Your task to perform on an android device: Search for seafood restaurants on Google Maps Image 0: 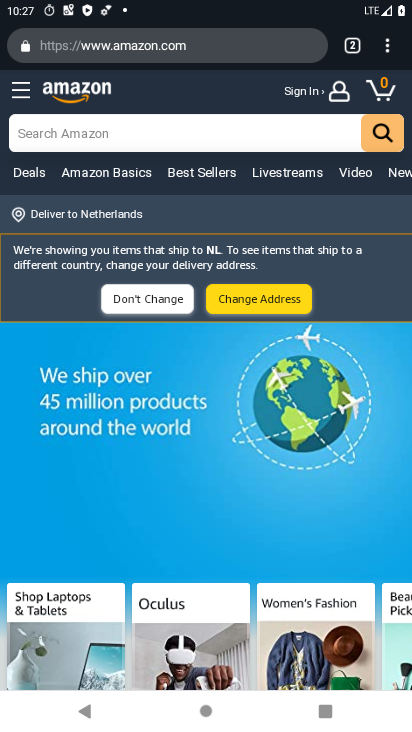
Step 0: press home button
Your task to perform on an android device: Search for seafood restaurants on Google Maps Image 1: 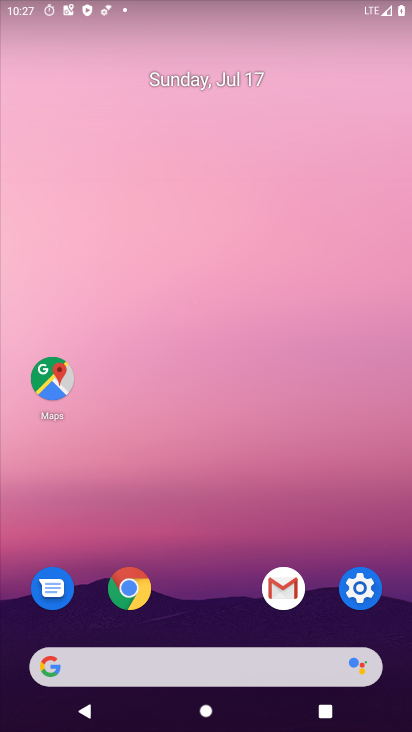
Step 1: click (35, 385)
Your task to perform on an android device: Search for seafood restaurants on Google Maps Image 2: 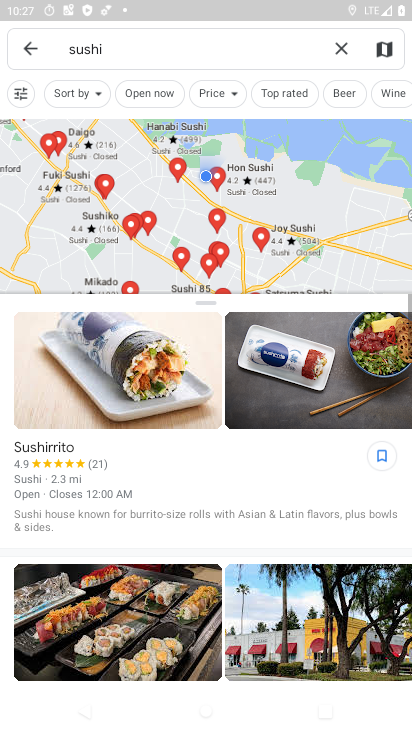
Step 2: click (337, 50)
Your task to perform on an android device: Search for seafood restaurants on Google Maps Image 3: 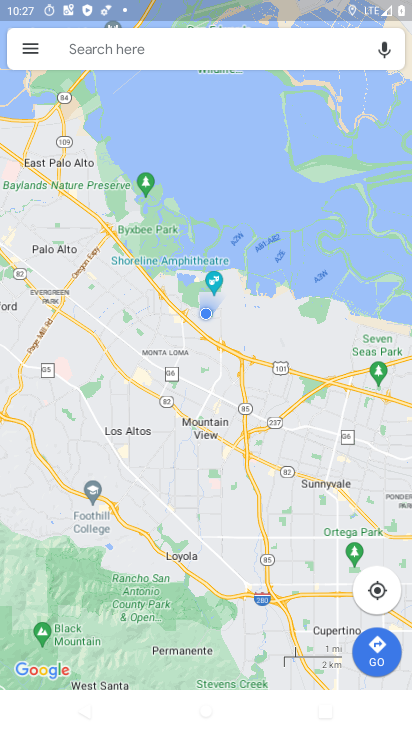
Step 3: click (110, 50)
Your task to perform on an android device: Search for seafood restaurants on Google Maps Image 4: 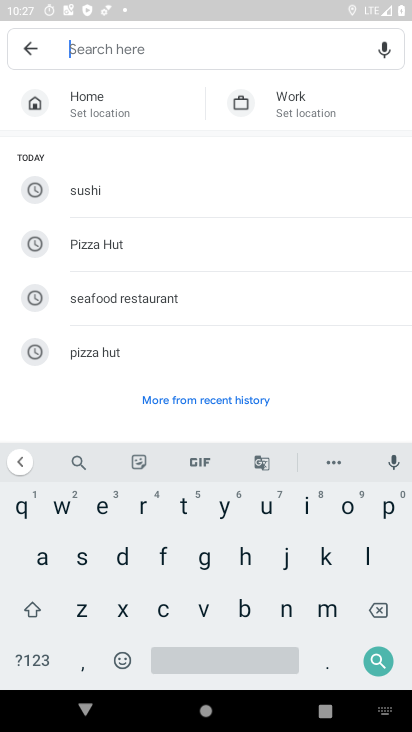
Step 4: click (83, 557)
Your task to perform on an android device: Search for seafood restaurants on Google Maps Image 5: 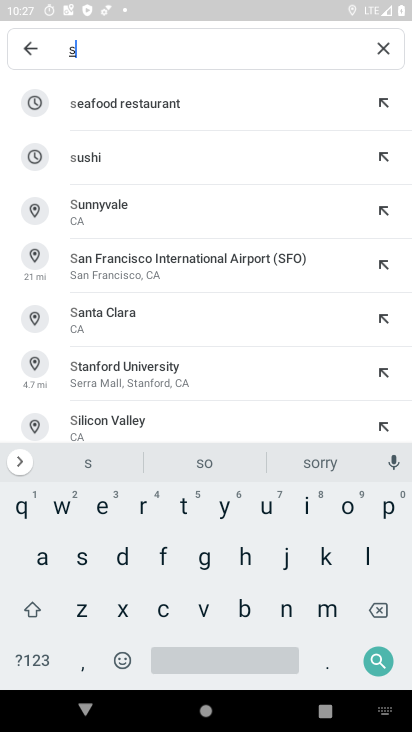
Step 5: click (130, 102)
Your task to perform on an android device: Search for seafood restaurants on Google Maps Image 6: 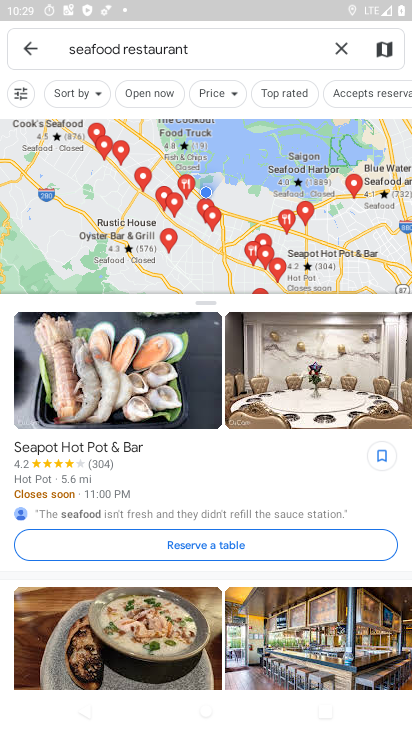
Step 6: task complete